Your task to perform on an android device: check data usage Image 0: 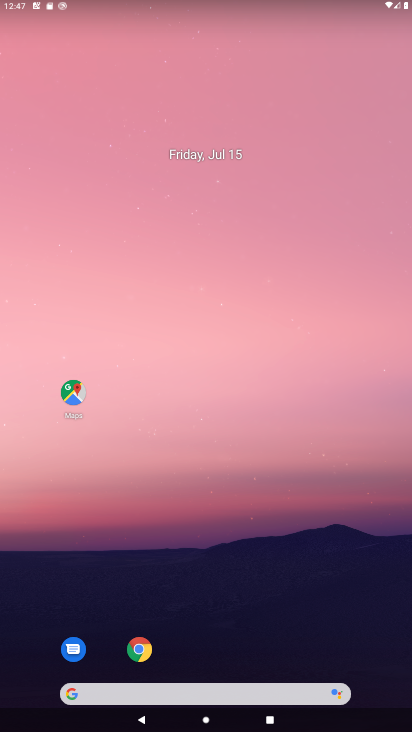
Step 0: drag from (329, 654) to (253, 0)
Your task to perform on an android device: check data usage Image 1: 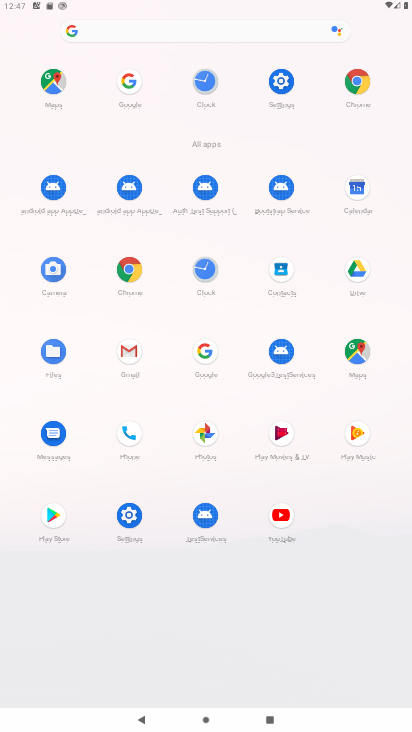
Step 1: click (280, 66)
Your task to perform on an android device: check data usage Image 2: 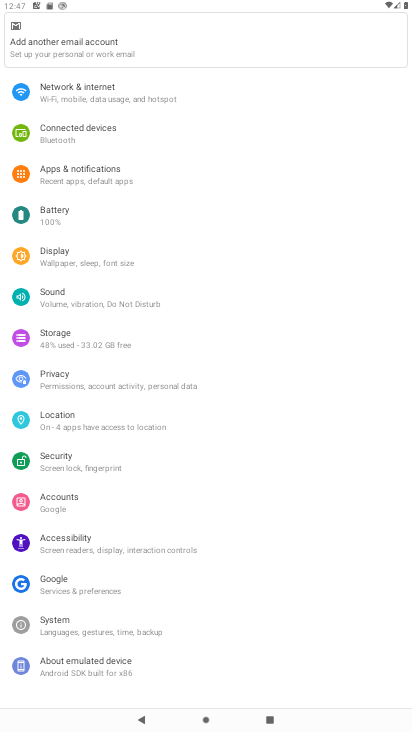
Step 2: click (72, 90)
Your task to perform on an android device: check data usage Image 3: 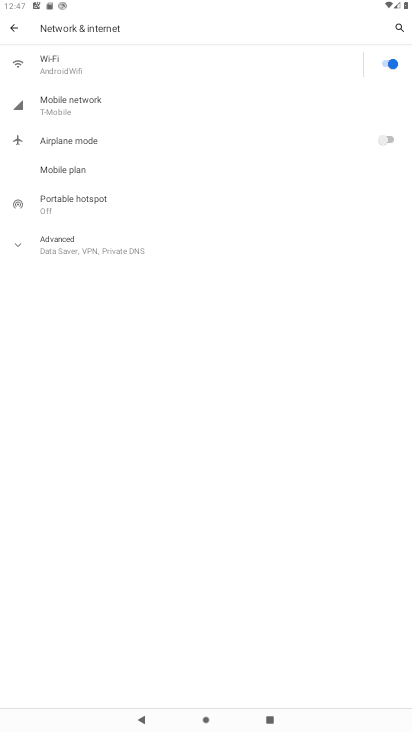
Step 3: click (82, 105)
Your task to perform on an android device: check data usage Image 4: 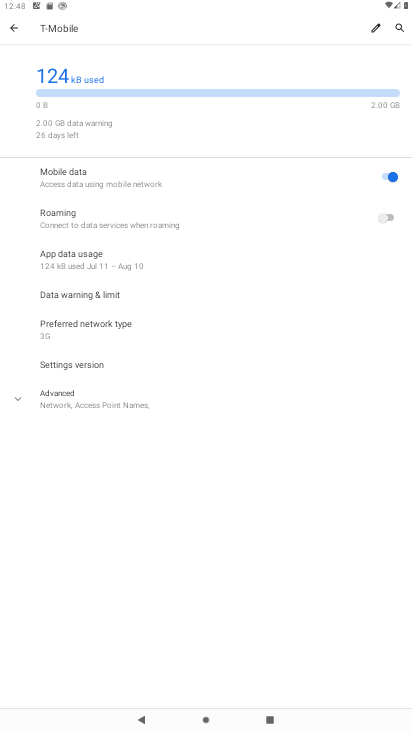
Step 4: task complete